Your task to perform on an android device: toggle airplane mode Image 0: 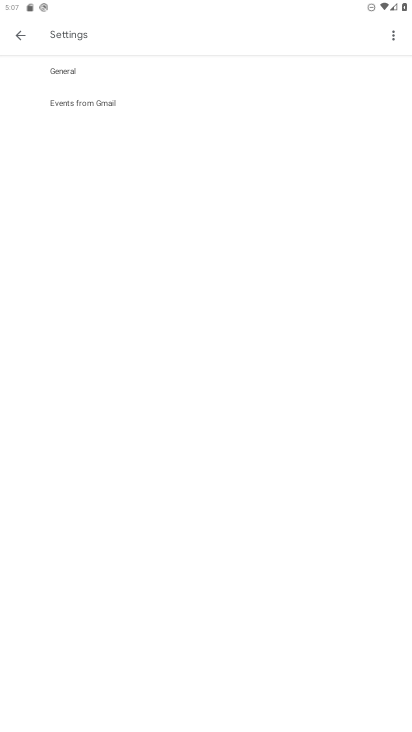
Step 0: press home button
Your task to perform on an android device: toggle airplane mode Image 1: 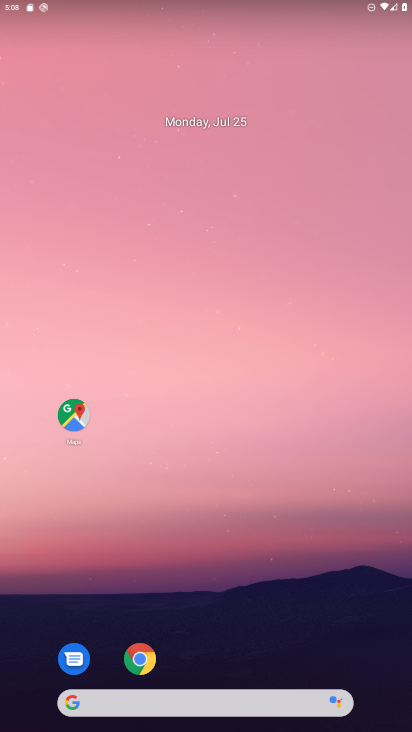
Step 1: drag from (298, 658) to (237, 71)
Your task to perform on an android device: toggle airplane mode Image 2: 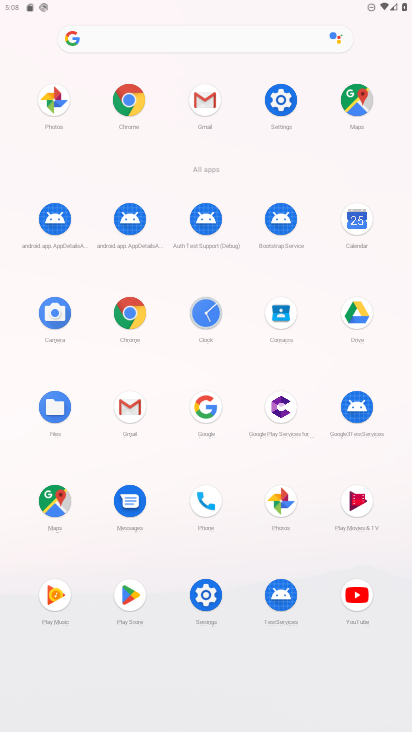
Step 2: click (284, 110)
Your task to perform on an android device: toggle airplane mode Image 3: 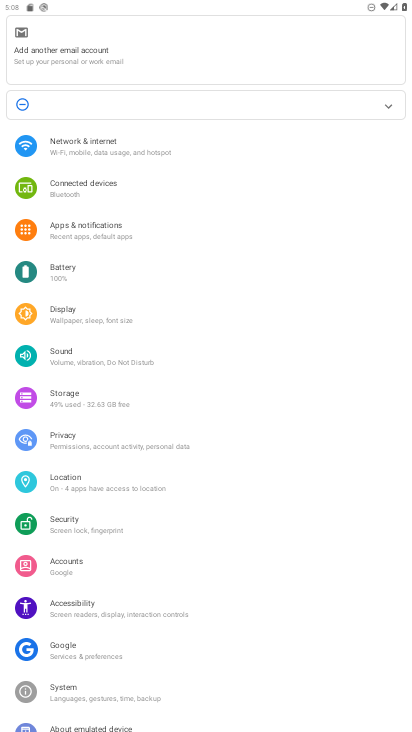
Step 3: click (178, 155)
Your task to perform on an android device: toggle airplane mode Image 4: 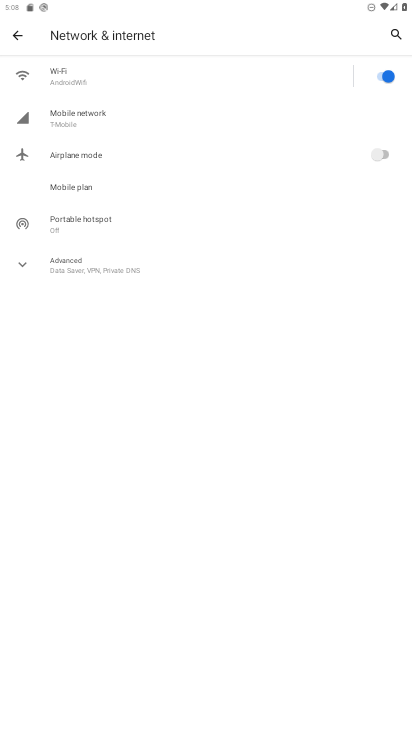
Step 4: click (376, 153)
Your task to perform on an android device: toggle airplane mode Image 5: 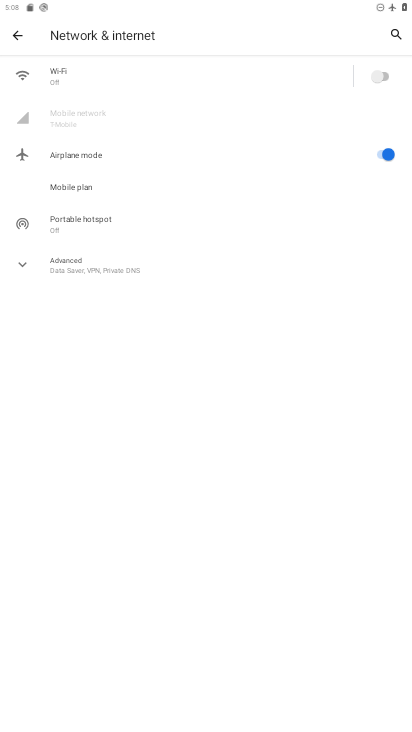
Step 5: task complete